Your task to perform on an android device: Open the Play Movies app and select the watchlist tab. Image 0: 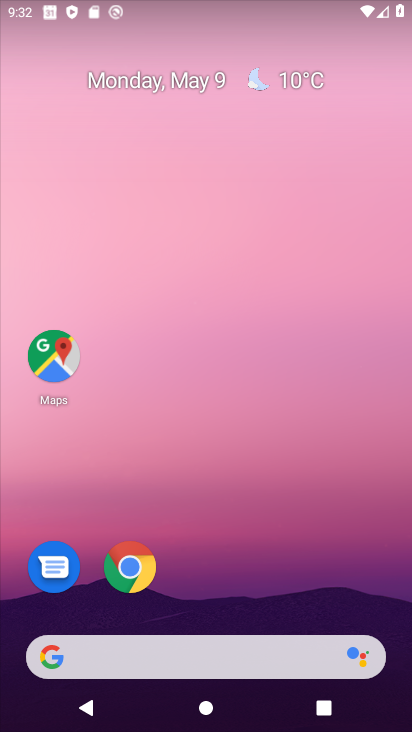
Step 0: drag from (241, 565) to (272, 49)
Your task to perform on an android device: Open the Play Movies app and select the watchlist tab. Image 1: 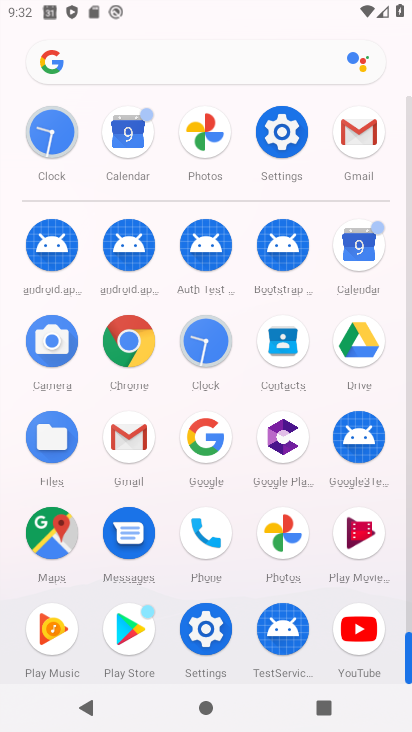
Step 1: click (356, 531)
Your task to perform on an android device: Open the Play Movies app and select the watchlist tab. Image 2: 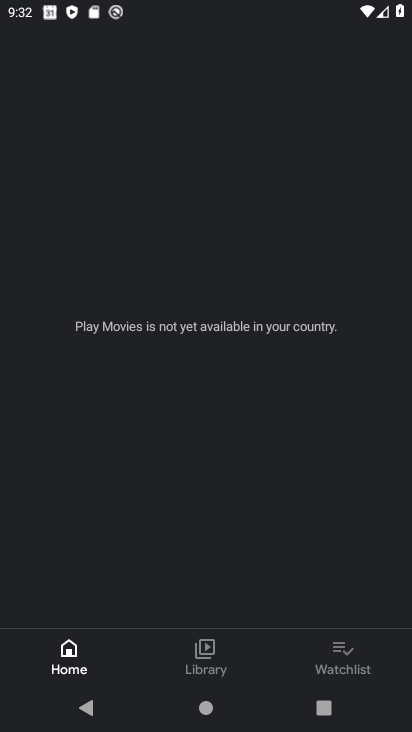
Step 2: click (346, 662)
Your task to perform on an android device: Open the Play Movies app and select the watchlist tab. Image 3: 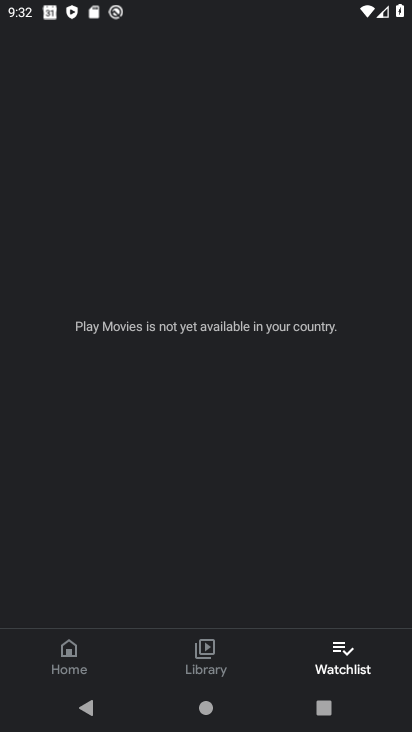
Step 3: task complete